Your task to perform on an android device: turn on improve location accuracy Image 0: 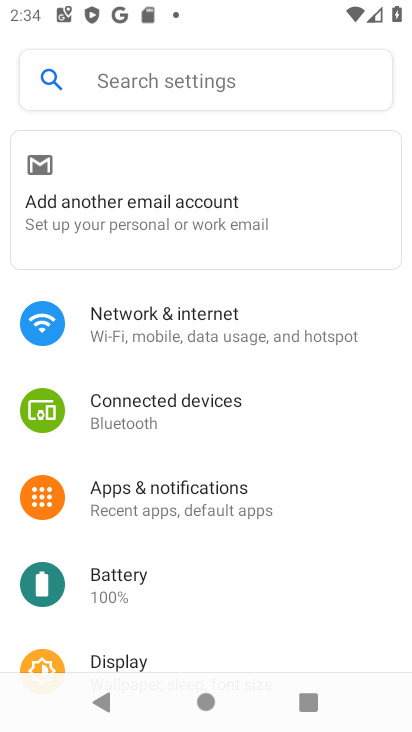
Step 0: drag from (261, 598) to (325, 119)
Your task to perform on an android device: turn on improve location accuracy Image 1: 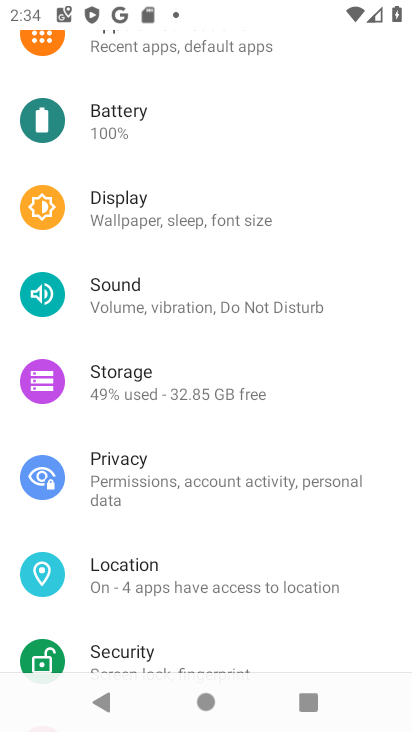
Step 1: click (189, 567)
Your task to perform on an android device: turn on improve location accuracy Image 2: 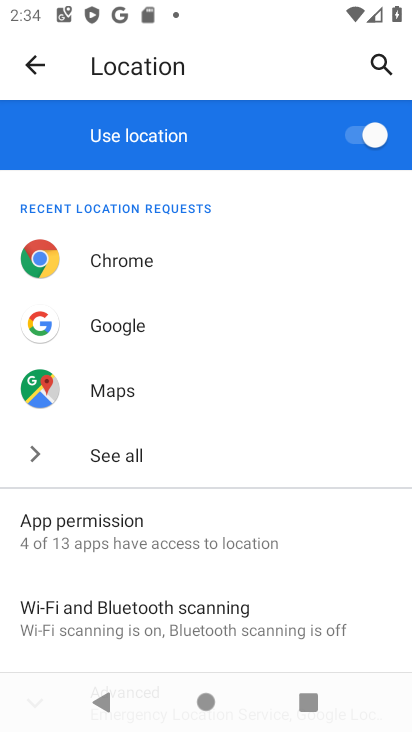
Step 2: drag from (187, 567) to (247, 226)
Your task to perform on an android device: turn on improve location accuracy Image 3: 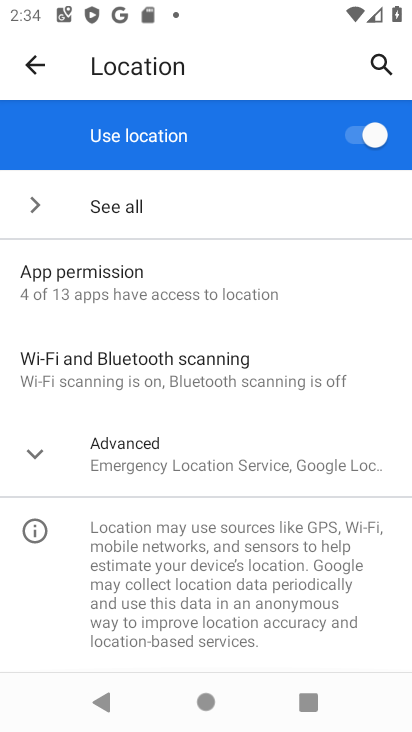
Step 3: click (208, 469)
Your task to perform on an android device: turn on improve location accuracy Image 4: 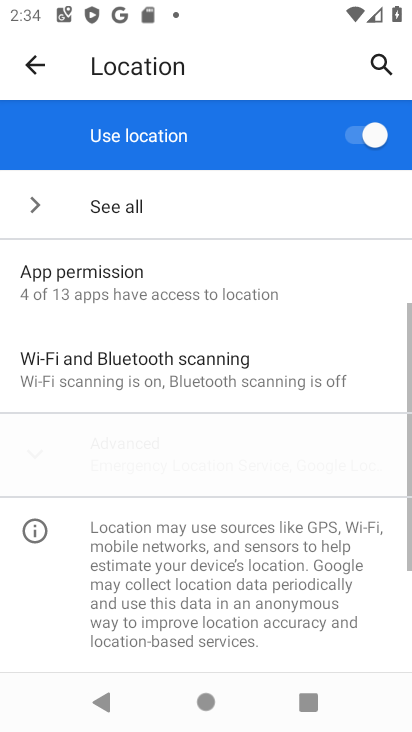
Step 4: task complete